Your task to perform on an android device: change the clock display to digital Image 0: 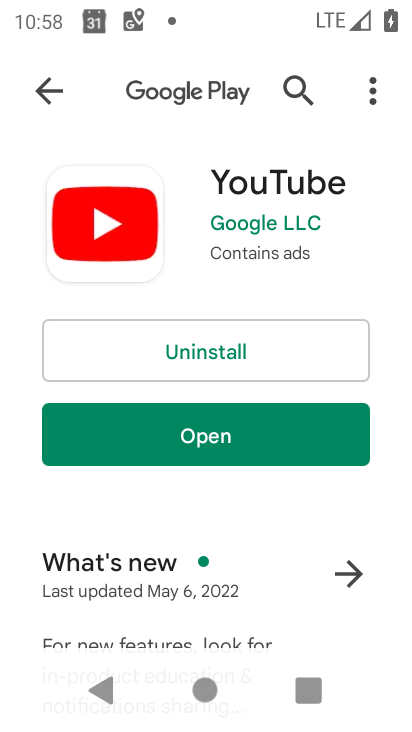
Step 0: press home button
Your task to perform on an android device: change the clock display to digital Image 1: 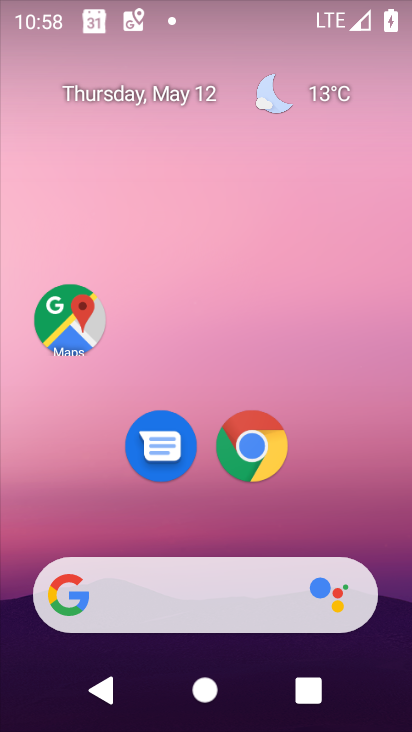
Step 1: drag from (231, 649) to (206, 149)
Your task to perform on an android device: change the clock display to digital Image 2: 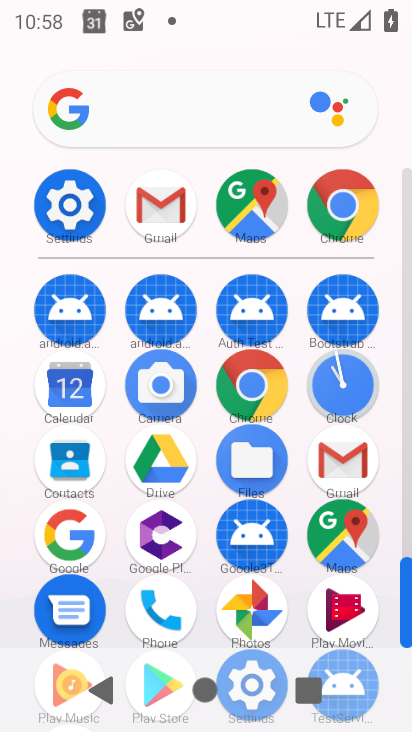
Step 2: click (335, 386)
Your task to perform on an android device: change the clock display to digital Image 3: 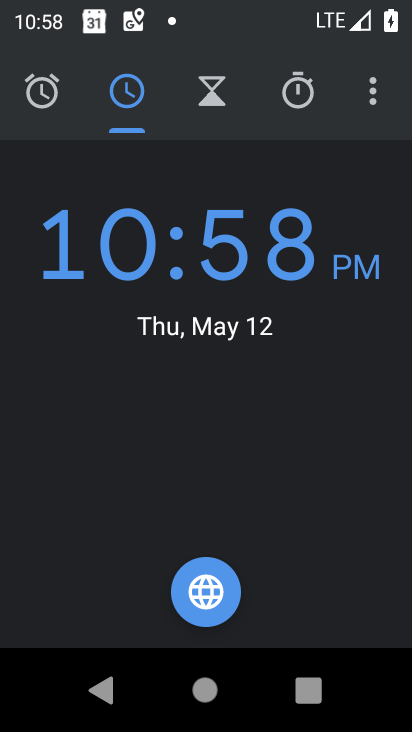
Step 3: task complete